Your task to perform on an android device: Open Google Chrome and click the shortcut for Amazon.com Image 0: 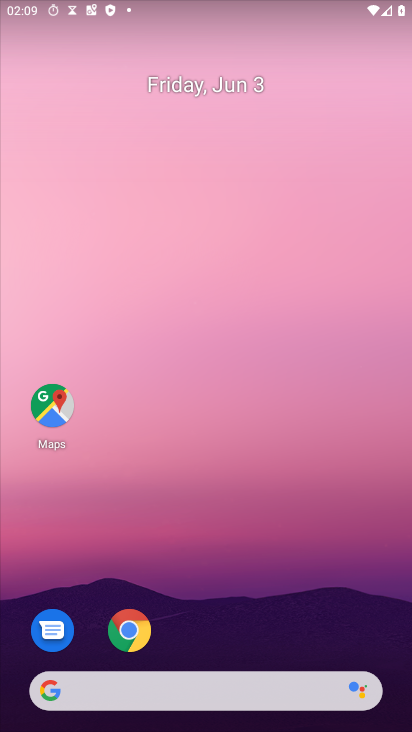
Step 0: drag from (283, 620) to (187, 147)
Your task to perform on an android device: Open Google Chrome and click the shortcut for Amazon.com Image 1: 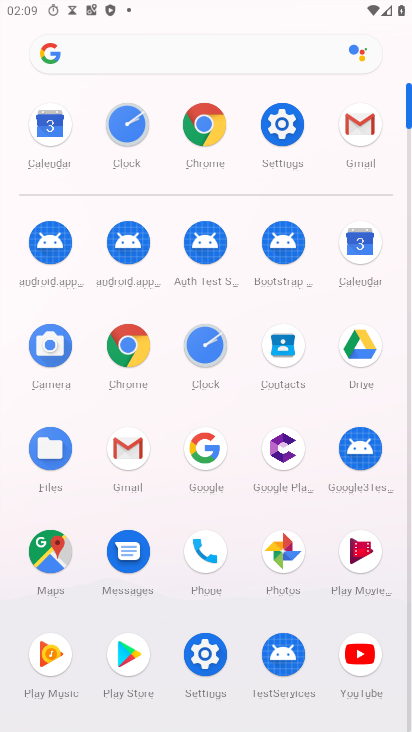
Step 1: click (202, 117)
Your task to perform on an android device: Open Google Chrome and click the shortcut for Amazon.com Image 2: 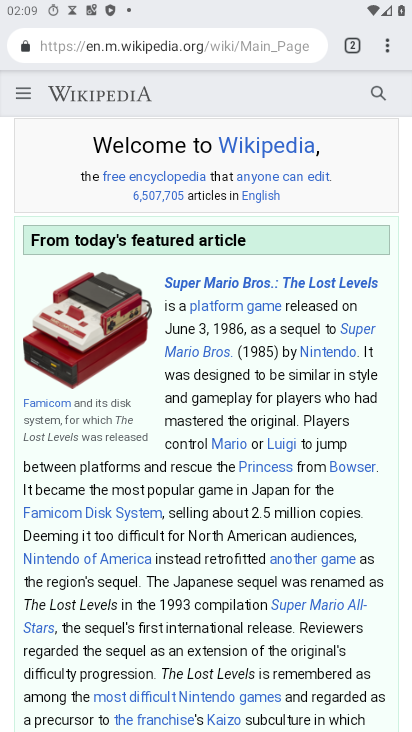
Step 2: click (352, 37)
Your task to perform on an android device: Open Google Chrome and click the shortcut for Amazon.com Image 3: 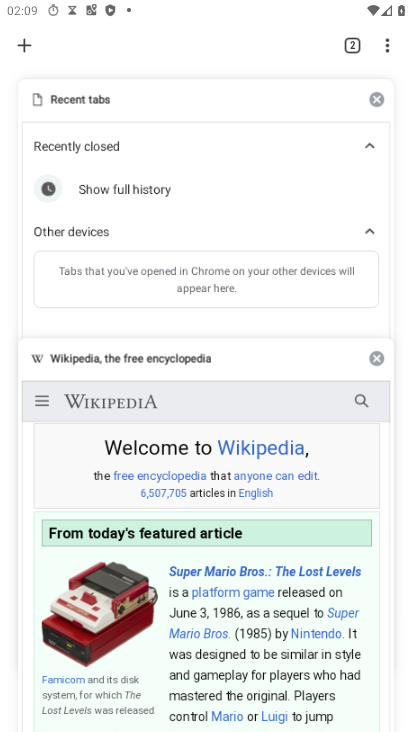
Step 3: click (15, 53)
Your task to perform on an android device: Open Google Chrome and click the shortcut for Amazon.com Image 4: 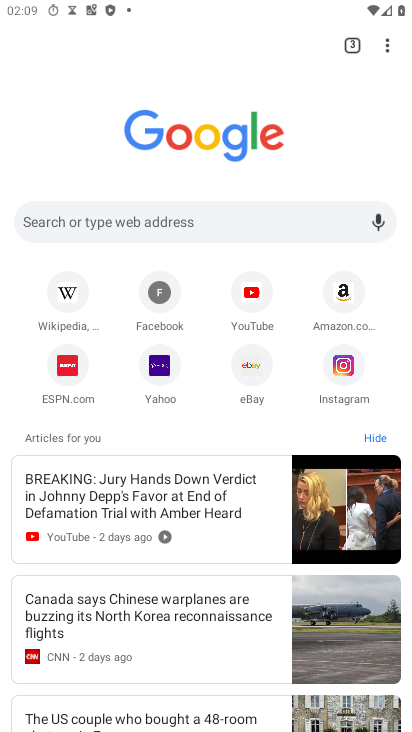
Step 4: click (338, 284)
Your task to perform on an android device: Open Google Chrome and click the shortcut for Amazon.com Image 5: 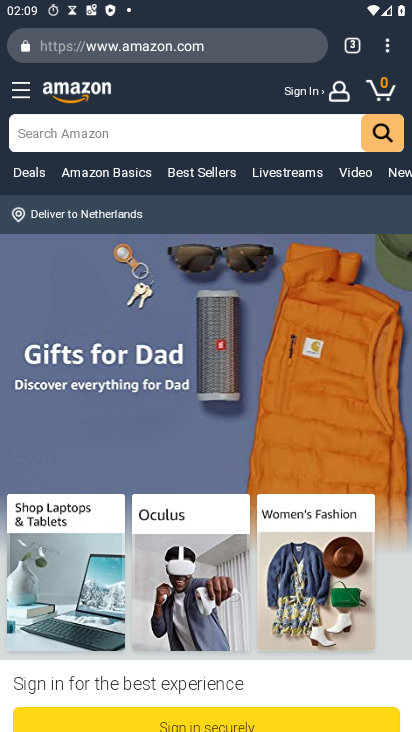
Step 5: task complete